Your task to perform on an android device: search for starred emails in the gmail app Image 0: 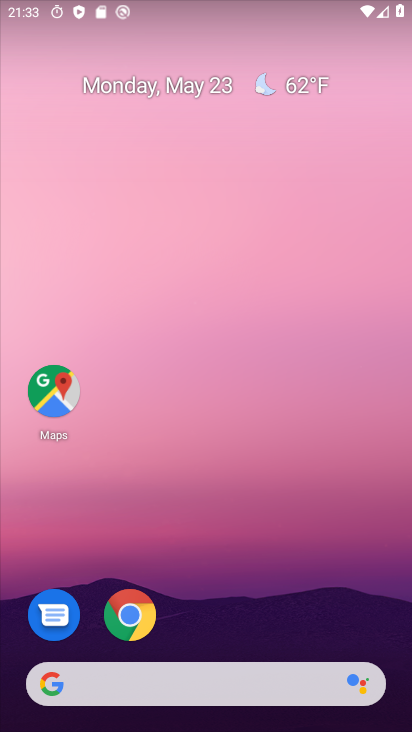
Step 0: click (199, 619)
Your task to perform on an android device: search for starred emails in the gmail app Image 1: 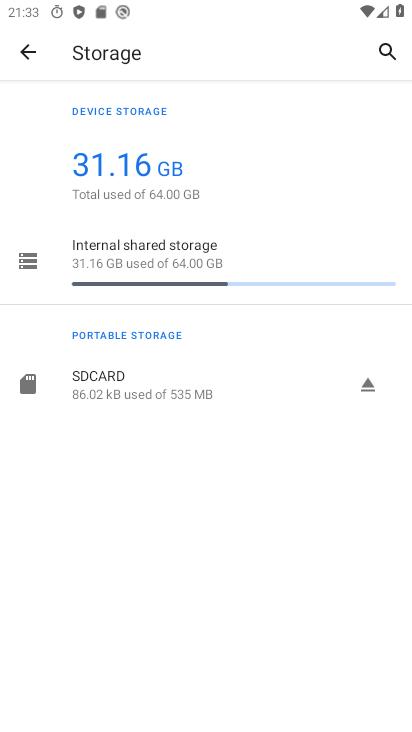
Step 1: press home button
Your task to perform on an android device: search for starred emails in the gmail app Image 2: 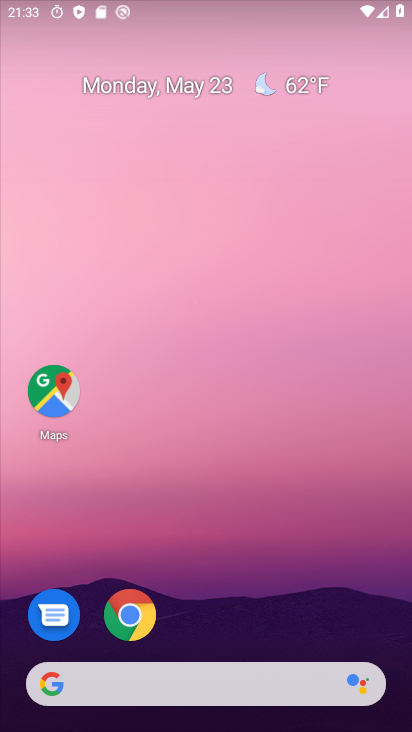
Step 2: drag from (217, 611) to (253, 82)
Your task to perform on an android device: search for starred emails in the gmail app Image 3: 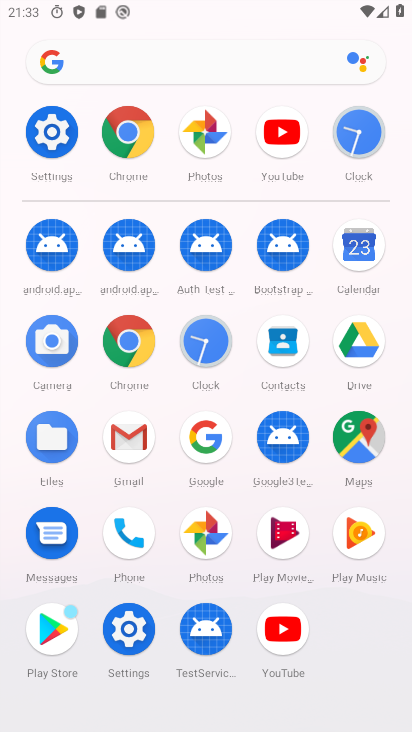
Step 3: click (133, 427)
Your task to perform on an android device: search for starred emails in the gmail app Image 4: 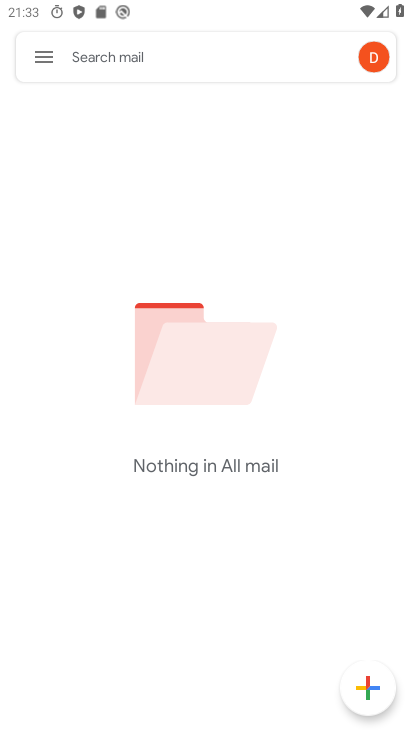
Step 4: click (39, 56)
Your task to perform on an android device: search for starred emails in the gmail app Image 5: 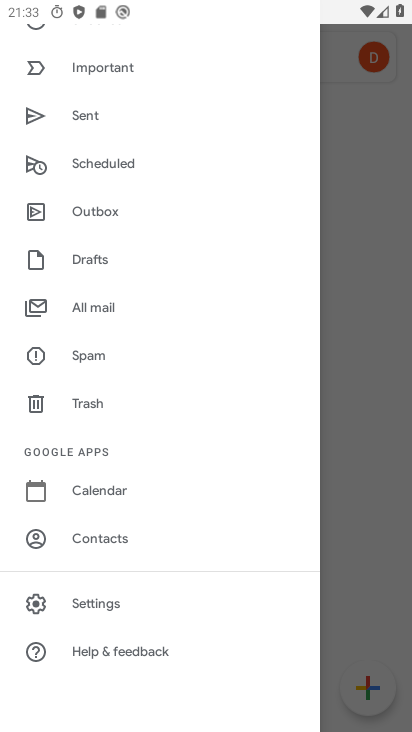
Step 5: drag from (162, 151) to (210, 418)
Your task to perform on an android device: search for starred emails in the gmail app Image 6: 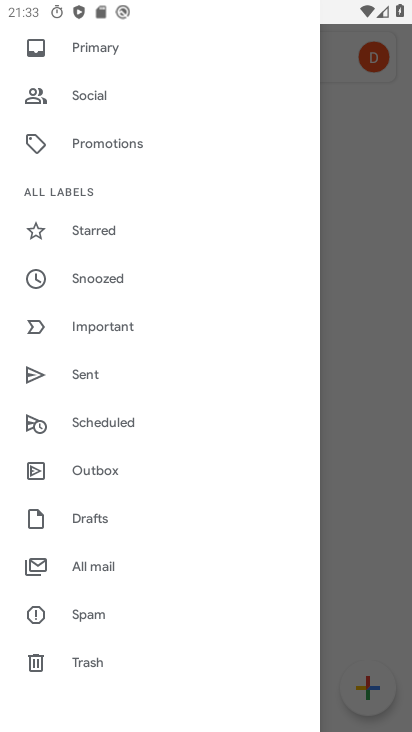
Step 6: click (103, 231)
Your task to perform on an android device: search for starred emails in the gmail app Image 7: 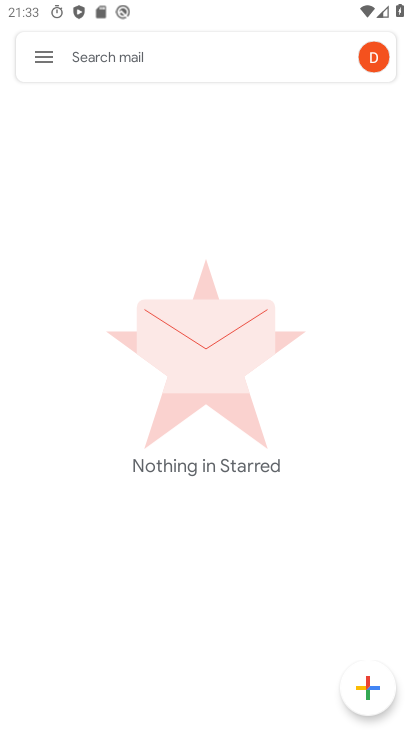
Step 7: task complete